Your task to perform on an android device: Go to accessibility settings Image 0: 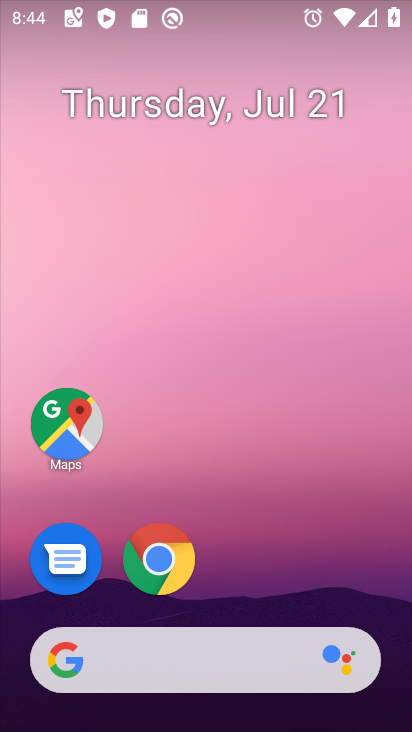
Step 0: drag from (320, 590) to (384, 117)
Your task to perform on an android device: Go to accessibility settings Image 1: 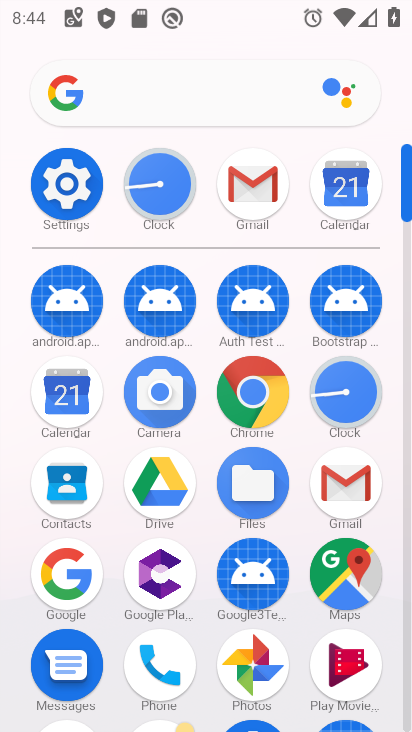
Step 1: click (77, 194)
Your task to perform on an android device: Go to accessibility settings Image 2: 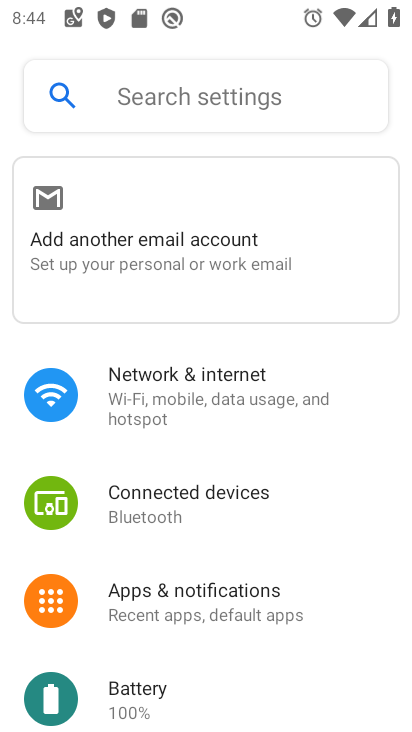
Step 2: drag from (372, 551) to (368, 443)
Your task to perform on an android device: Go to accessibility settings Image 3: 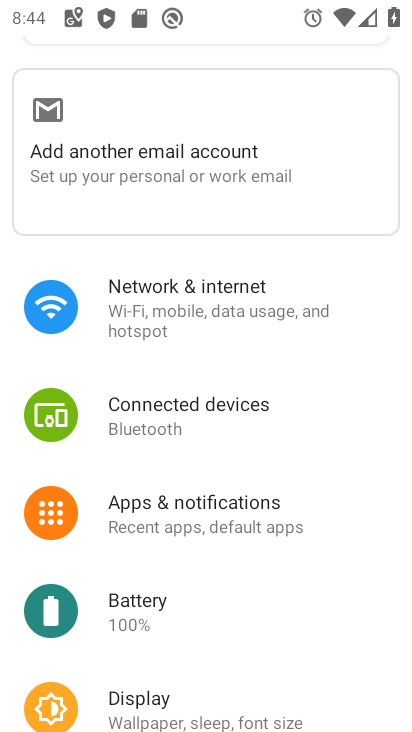
Step 3: drag from (352, 574) to (348, 494)
Your task to perform on an android device: Go to accessibility settings Image 4: 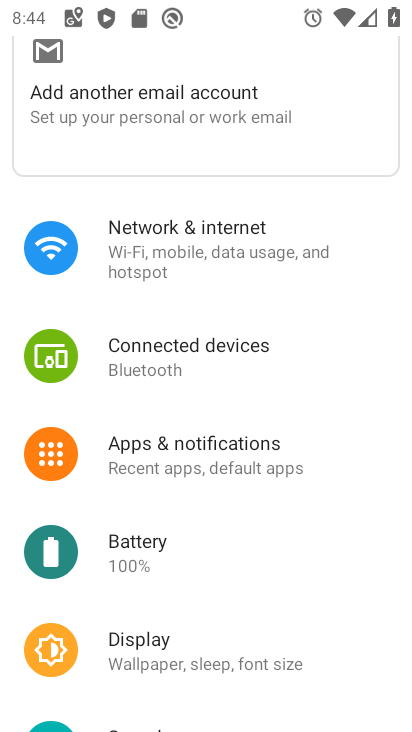
Step 4: drag from (348, 563) to (357, 413)
Your task to perform on an android device: Go to accessibility settings Image 5: 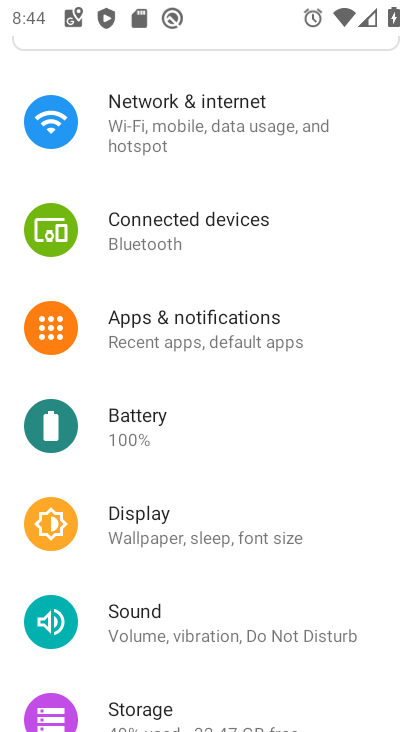
Step 5: drag from (368, 518) to (368, 422)
Your task to perform on an android device: Go to accessibility settings Image 6: 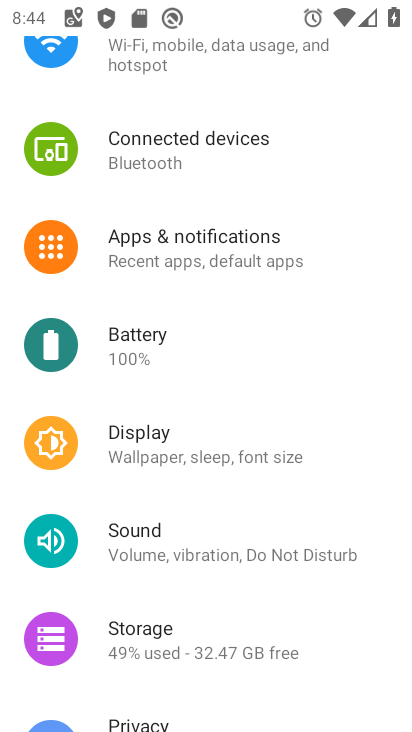
Step 6: drag from (359, 583) to (361, 475)
Your task to perform on an android device: Go to accessibility settings Image 7: 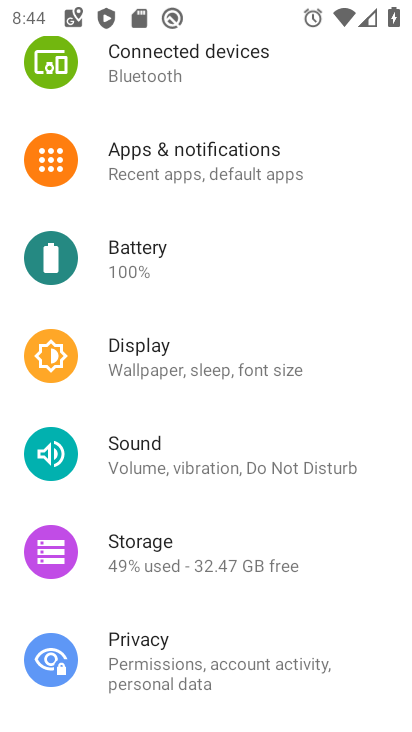
Step 7: drag from (365, 589) to (372, 478)
Your task to perform on an android device: Go to accessibility settings Image 8: 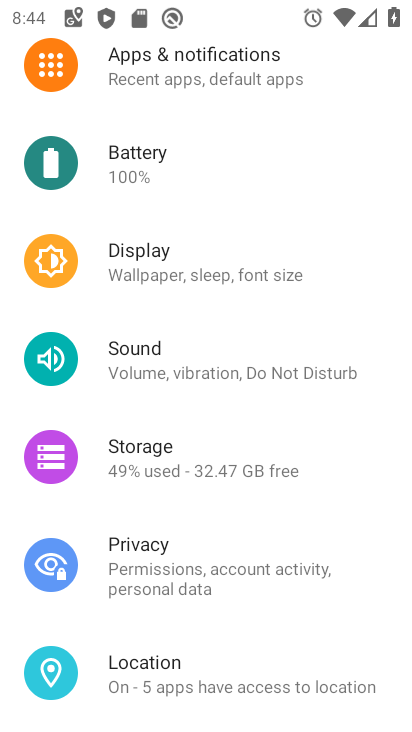
Step 8: drag from (380, 633) to (373, 506)
Your task to perform on an android device: Go to accessibility settings Image 9: 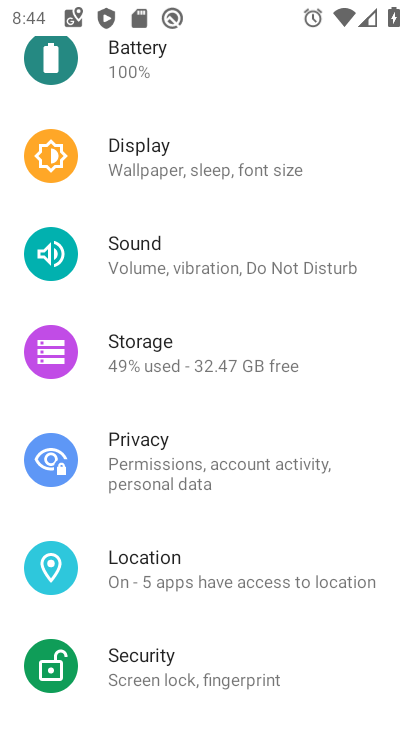
Step 9: drag from (362, 639) to (365, 540)
Your task to perform on an android device: Go to accessibility settings Image 10: 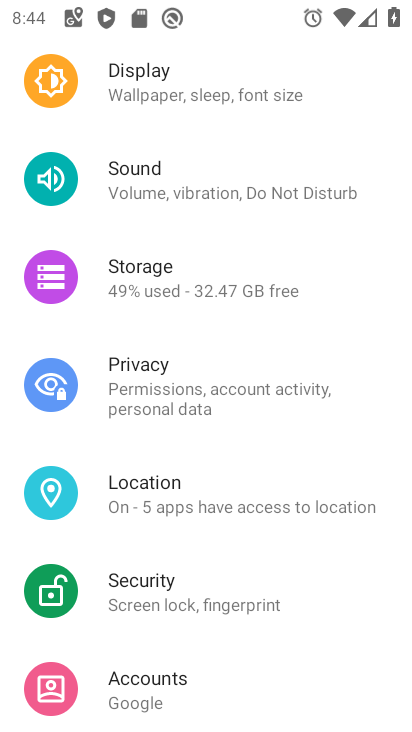
Step 10: drag from (365, 643) to (367, 546)
Your task to perform on an android device: Go to accessibility settings Image 11: 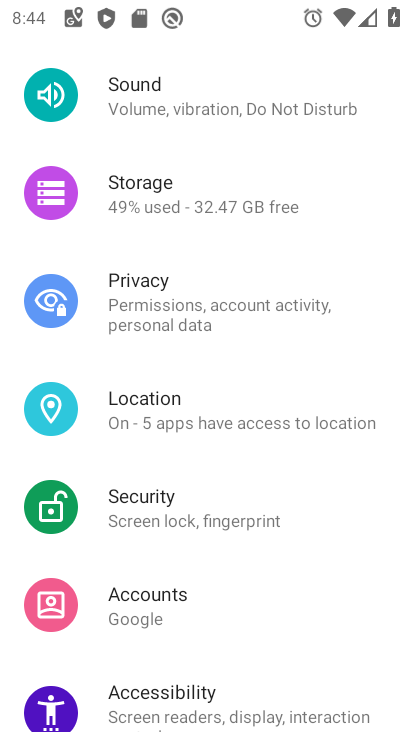
Step 11: drag from (359, 666) to (361, 560)
Your task to perform on an android device: Go to accessibility settings Image 12: 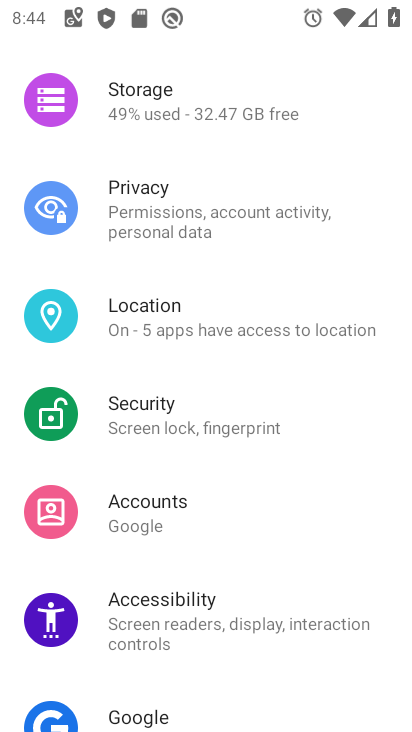
Step 12: drag from (346, 686) to (357, 572)
Your task to perform on an android device: Go to accessibility settings Image 13: 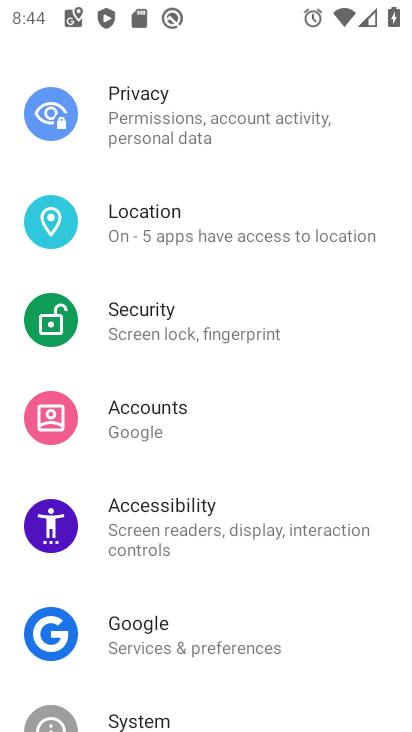
Step 13: drag from (346, 675) to (347, 588)
Your task to perform on an android device: Go to accessibility settings Image 14: 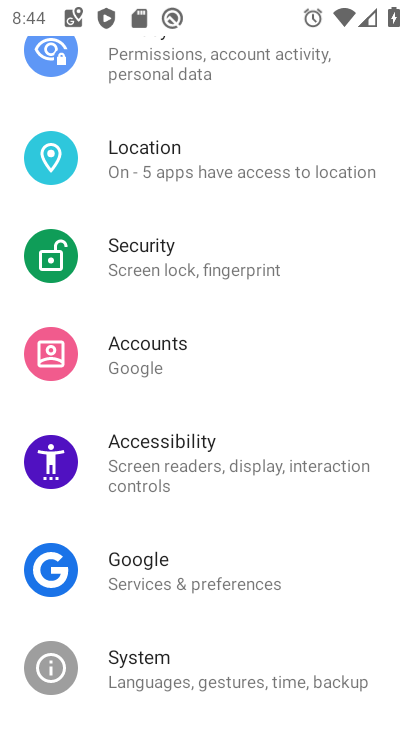
Step 14: click (317, 482)
Your task to perform on an android device: Go to accessibility settings Image 15: 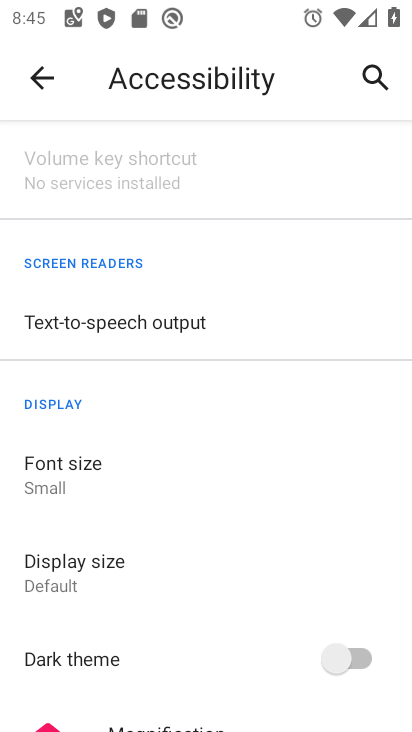
Step 15: task complete